Your task to perform on an android device: Open the calendar app, open the side menu, and click the "Day" option Image 0: 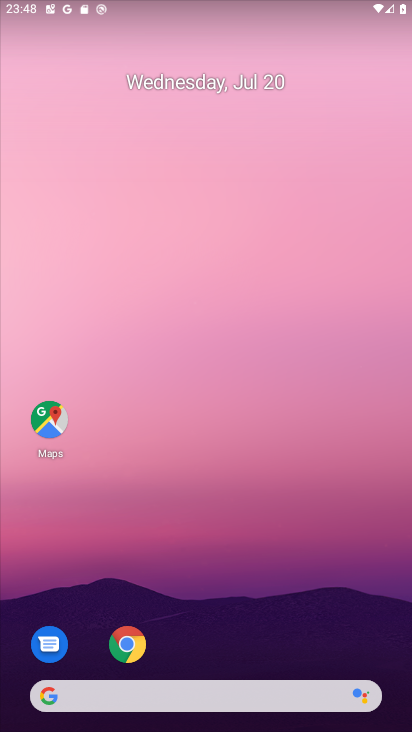
Step 0: drag from (144, 672) to (235, 160)
Your task to perform on an android device: Open the calendar app, open the side menu, and click the "Day" option Image 1: 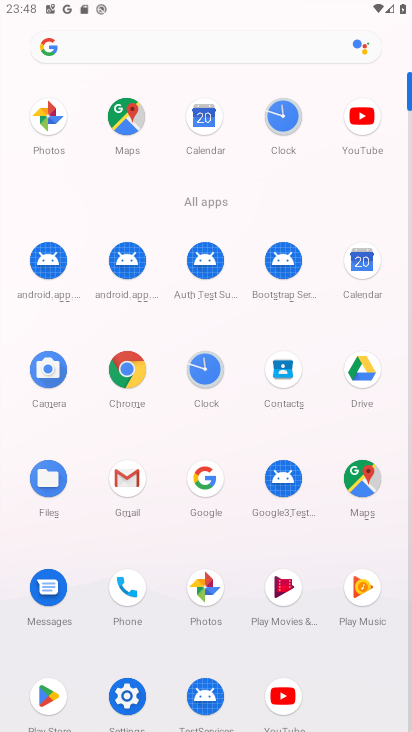
Step 1: click (358, 256)
Your task to perform on an android device: Open the calendar app, open the side menu, and click the "Day" option Image 2: 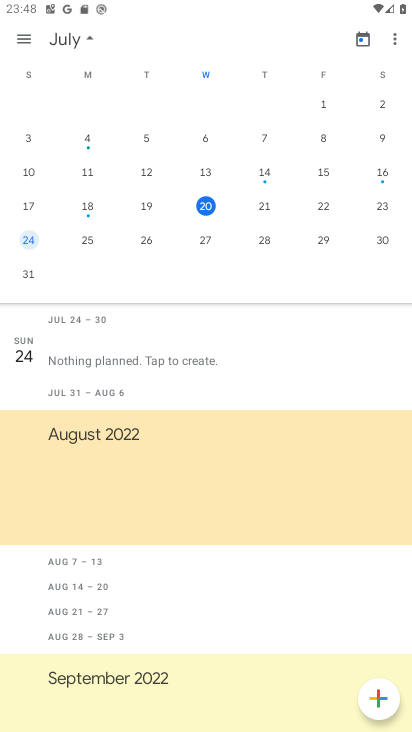
Step 2: click (26, 41)
Your task to perform on an android device: Open the calendar app, open the side menu, and click the "Day" option Image 3: 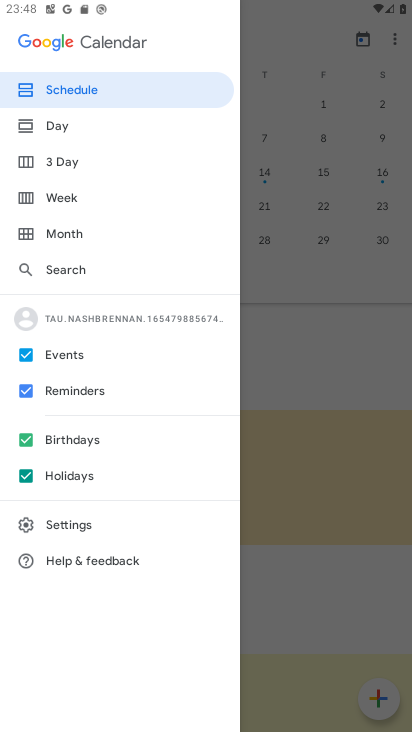
Step 3: click (151, 123)
Your task to perform on an android device: Open the calendar app, open the side menu, and click the "Day" option Image 4: 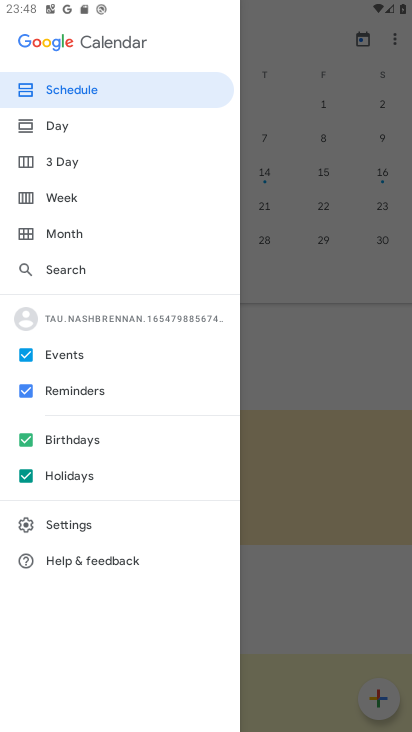
Step 4: click (95, 124)
Your task to perform on an android device: Open the calendar app, open the side menu, and click the "Day" option Image 5: 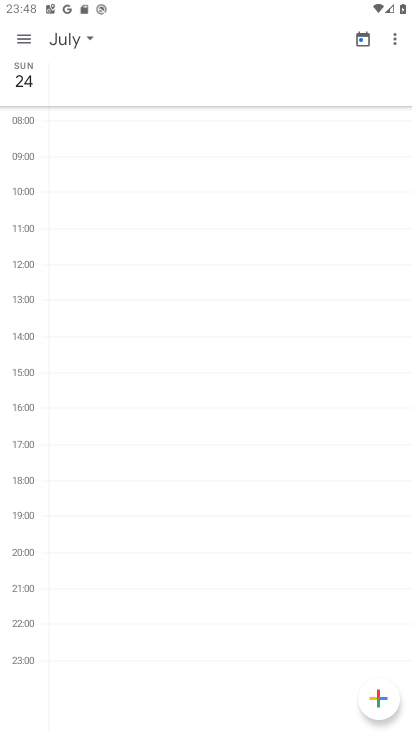
Step 5: task complete